Your task to perform on an android device: Open CNN.com Image 0: 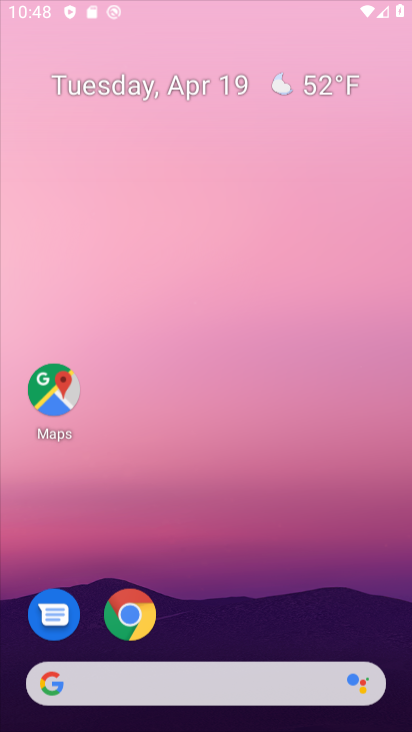
Step 0: drag from (211, 657) to (323, 59)
Your task to perform on an android device: Open CNN.com Image 1: 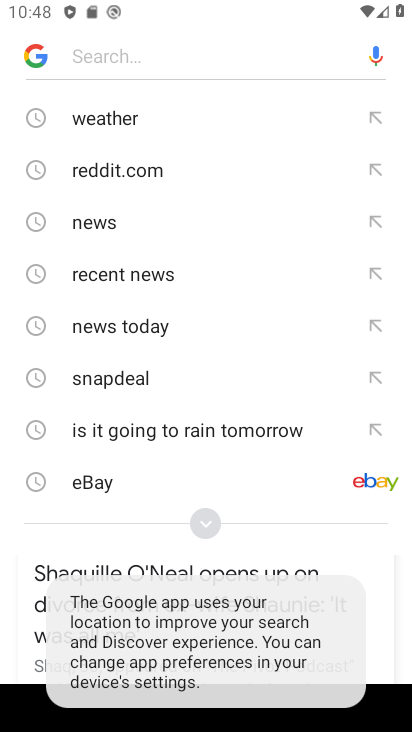
Step 1: click (168, 62)
Your task to perform on an android device: Open CNN.com Image 2: 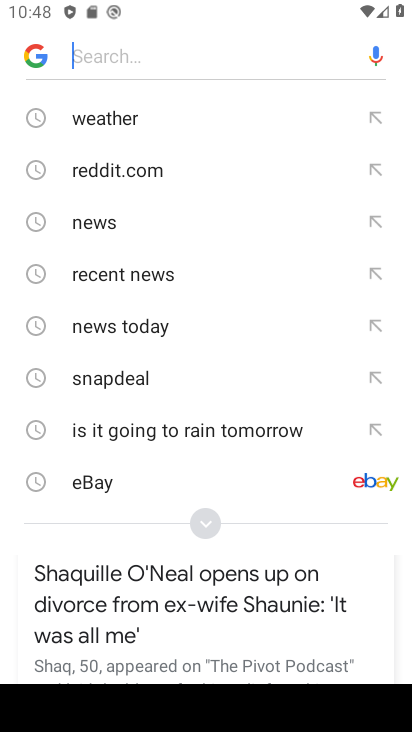
Step 2: type "cnn.com"
Your task to perform on an android device: Open CNN.com Image 3: 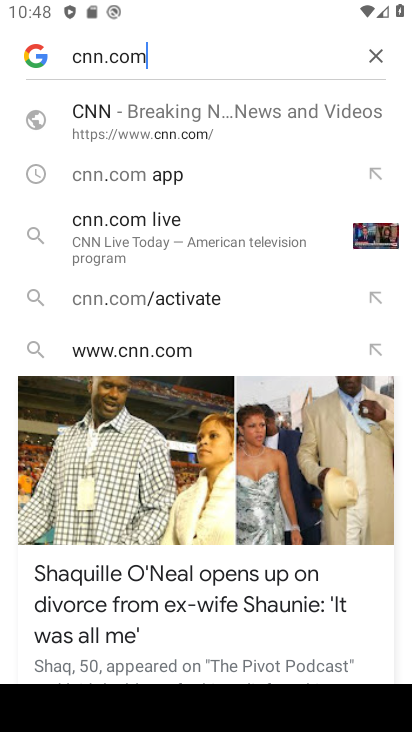
Step 3: click (201, 115)
Your task to perform on an android device: Open CNN.com Image 4: 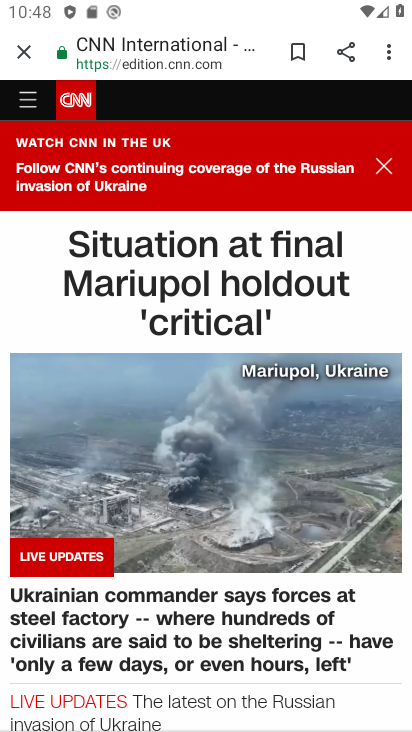
Step 4: task complete